Your task to perform on an android device: Search for sushi restaurants on Maps Image 0: 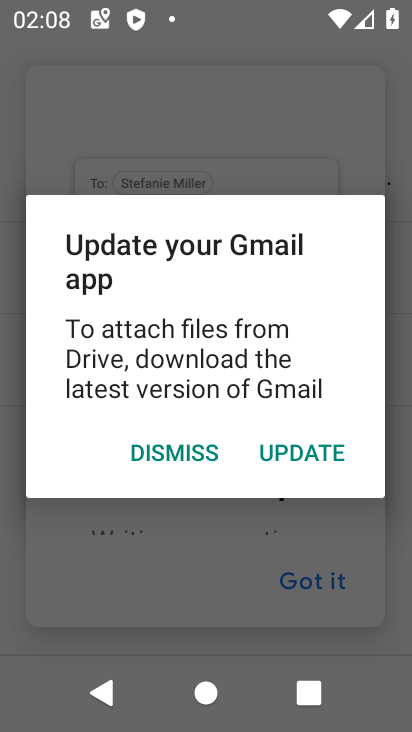
Step 0: press home button
Your task to perform on an android device: Search for sushi restaurants on Maps Image 1: 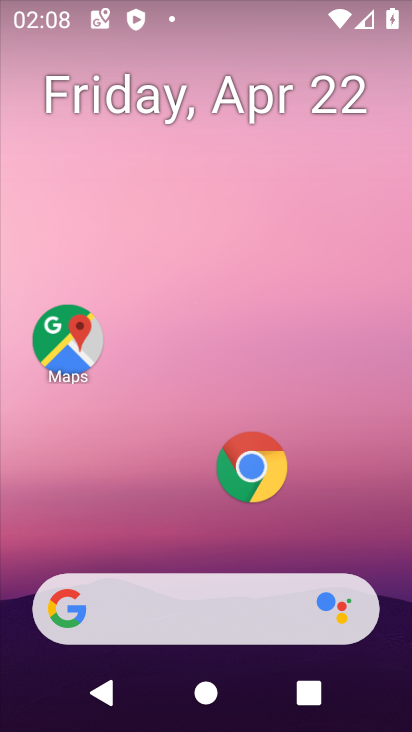
Step 1: click (73, 346)
Your task to perform on an android device: Search for sushi restaurants on Maps Image 2: 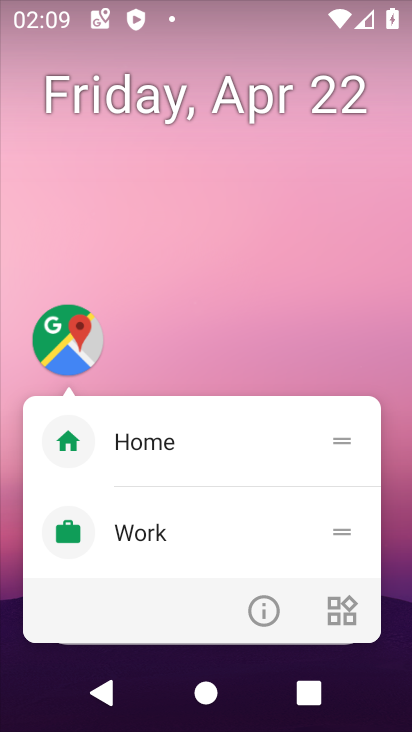
Step 2: click (270, 605)
Your task to perform on an android device: Search for sushi restaurants on Maps Image 3: 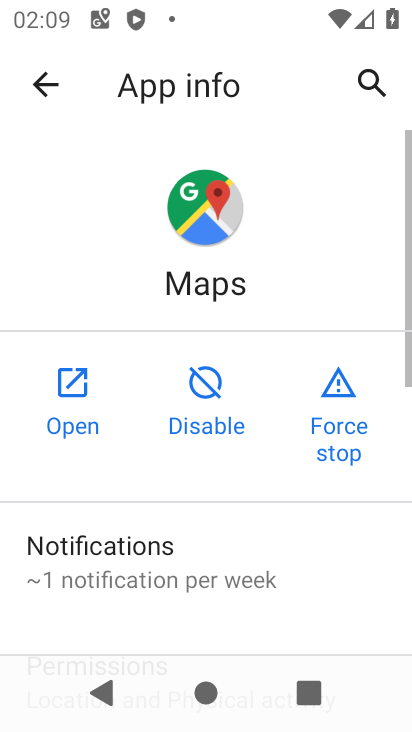
Step 3: click (83, 427)
Your task to perform on an android device: Search for sushi restaurants on Maps Image 4: 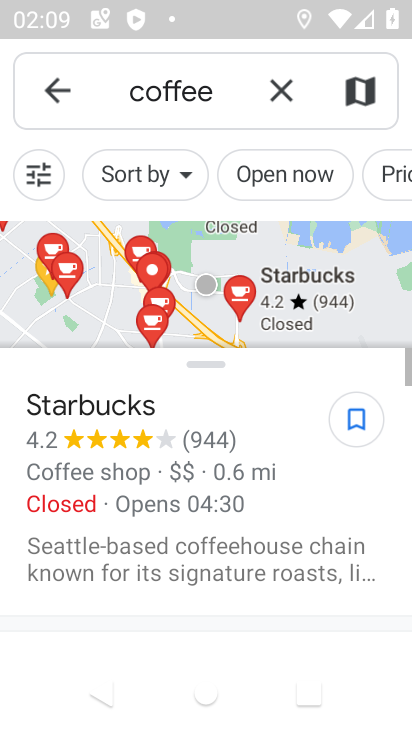
Step 4: click (273, 90)
Your task to perform on an android device: Search for sushi restaurants on Maps Image 5: 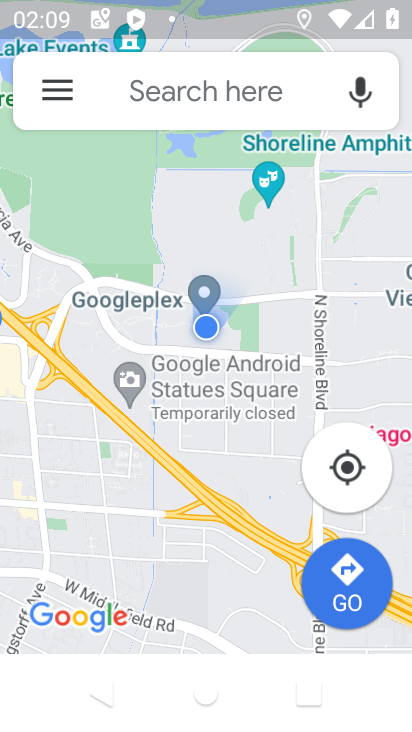
Step 5: type "sushi restaurants"
Your task to perform on an android device: Search for sushi restaurants on Maps Image 6: 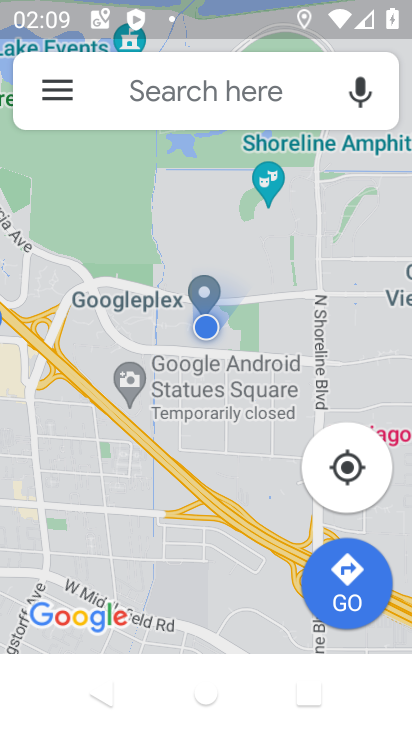
Step 6: click (158, 94)
Your task to perform on an android device: Search for sushi restaurants on Maps Image 7: 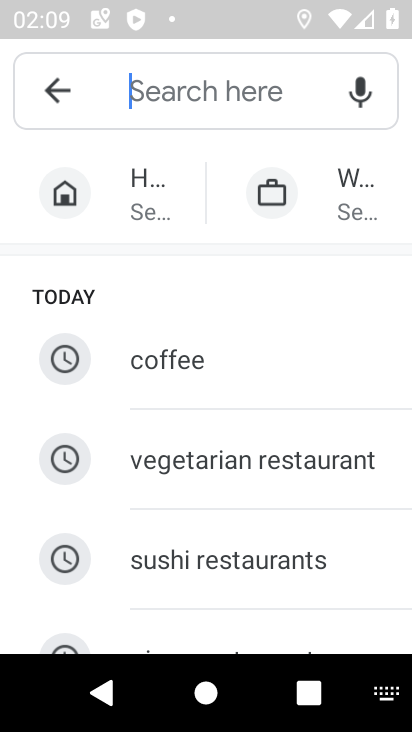
Step 7: type "sushi restaurants"
Your task to perform on an android device: Search for sushi restaurants on Maps Image 8: 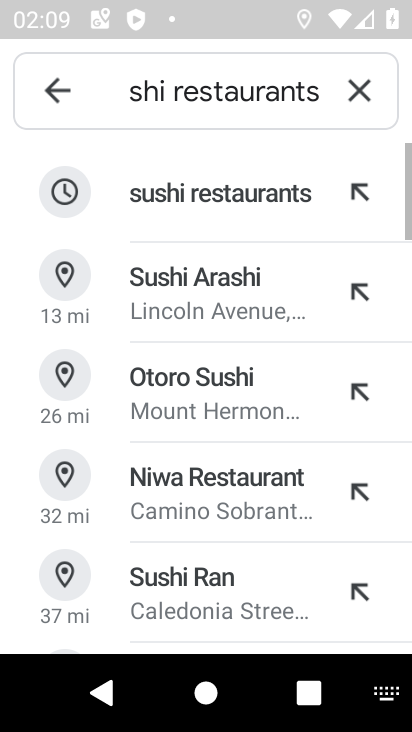
Step 8: click (182, 205)
Your task to perform on an android device: Search for sushi restaurants on Maps Image 9: 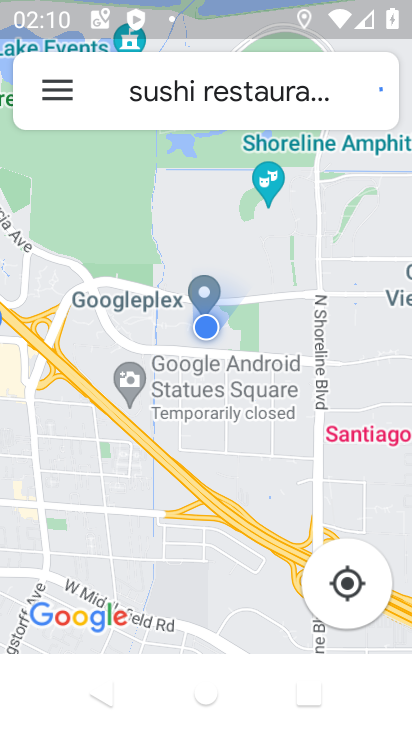
Step 9: task complete